Your task to perform on an android device: turn on wifi Image 0: 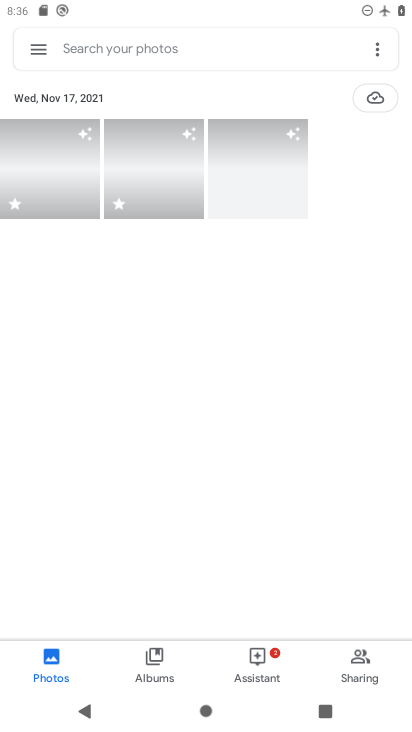
Step 0: press home button
Your task to perform on an android device: turn on wifi Image 1: 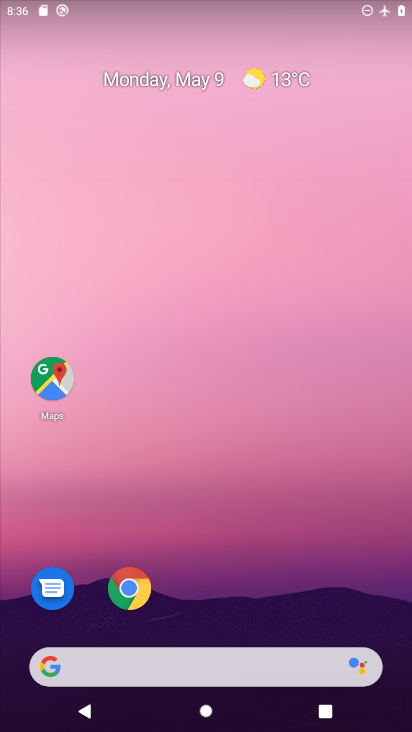
Step 1: drag from (229, 597) to (233, 9)
Your task to perform on an android device: turn on wifi Image 2: 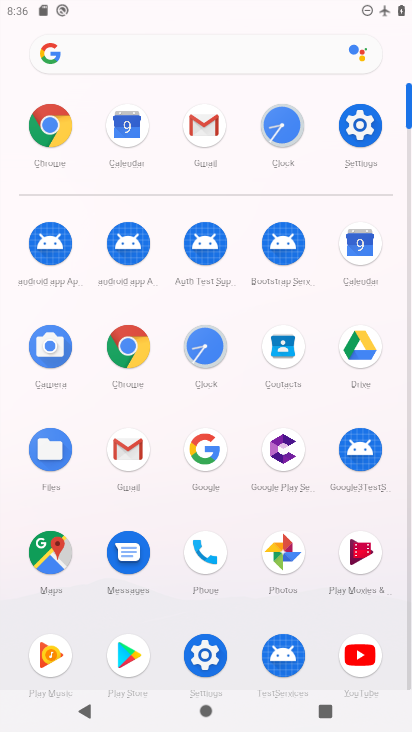
Step 2: click (377, 138)
Your task to perform on an android device: turn on wifi Image 3: 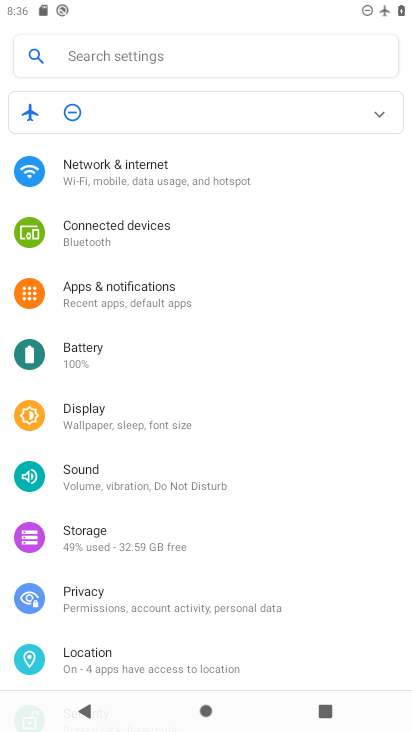
Step 3: click (116, 171)
Your task to perform on an android device: turn on wifi Image 4: 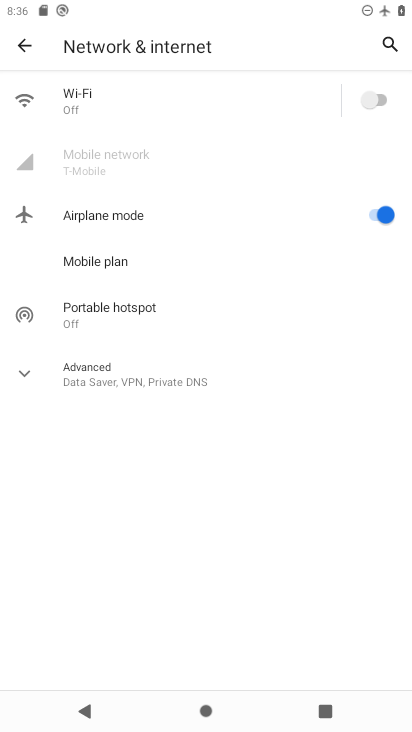
Step 4: click (369, 218)
Your task to perform on an android device: turn on wifi Image 5: 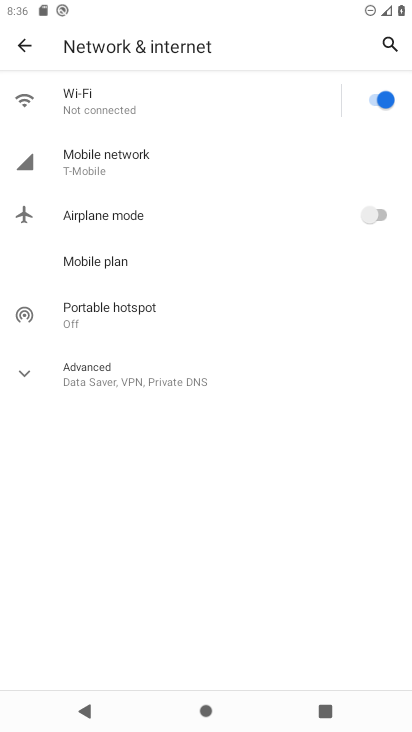
Step 5: click (381, 87)
Your task to perform on an android device: turn on wifi Image 6: 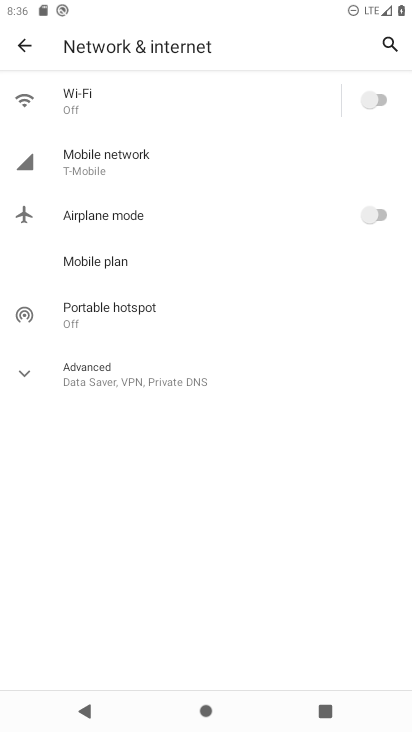
Step 6: click (376, 99)
Your task to perform on an android device: turn on wifi Image 7: 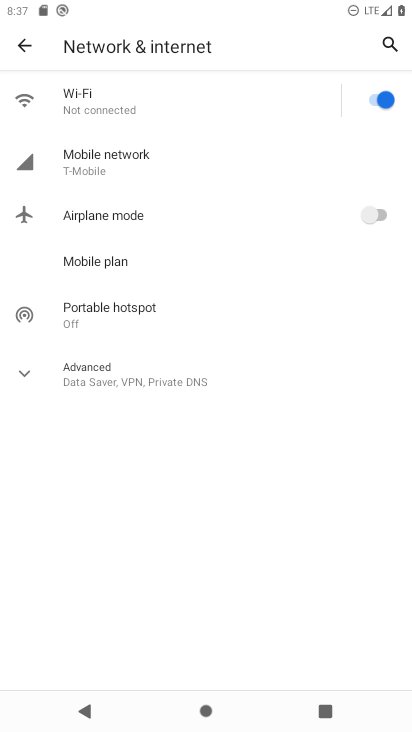
Step 7: task complete